Your task to perform on an android device: Open Google Maps Image 0: 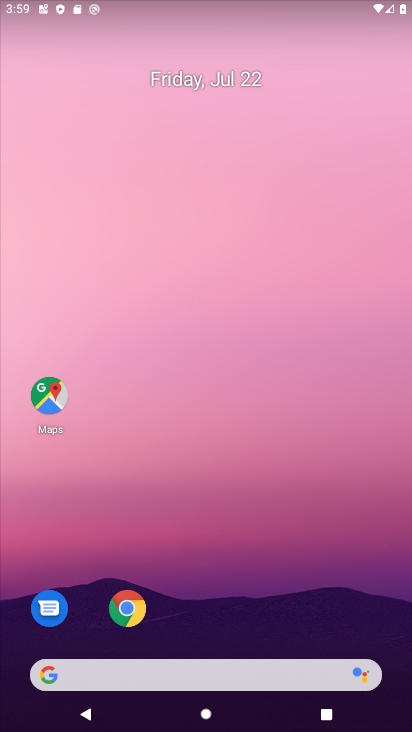
Step 0: drag from (232, 721) to (225, 122)
Your task to perform on an android device: Open Google Maps Image 1: 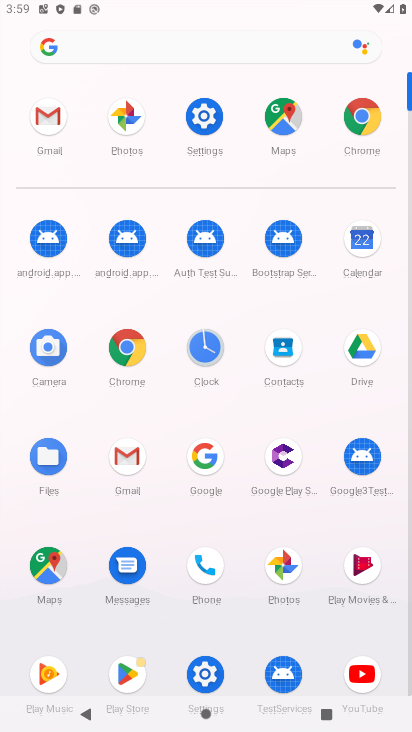
Step 1: click (203, 459)
Your task to perform on an android device: Open Google Maps Image 2: 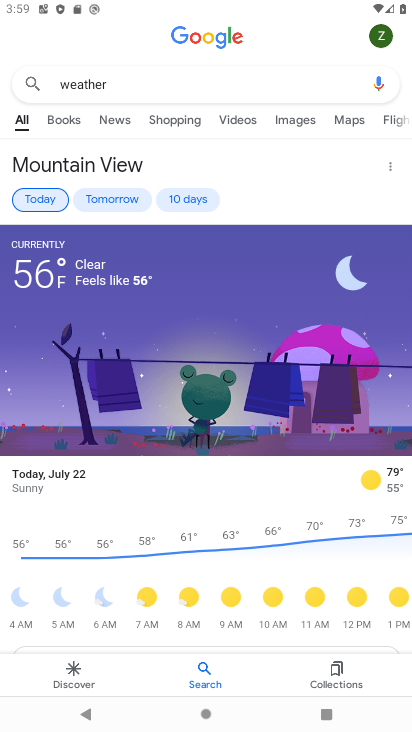
Step 2: press home button
Your task to perform on an android device: Open Google Maps Image 3: 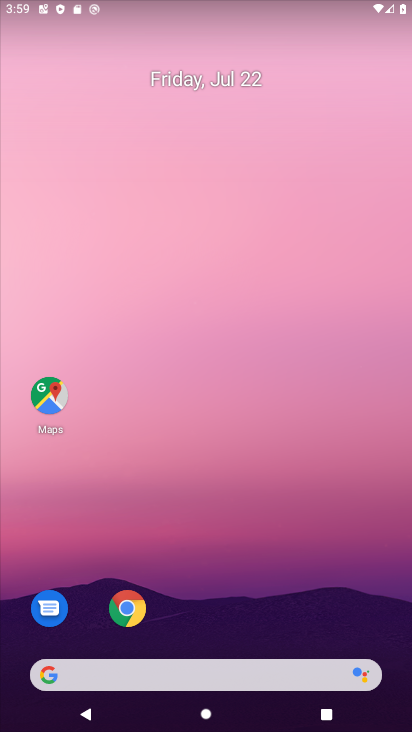
Step 3: click (47, 396)
Your task to perform on an android device: Open Google Maps Image 4: 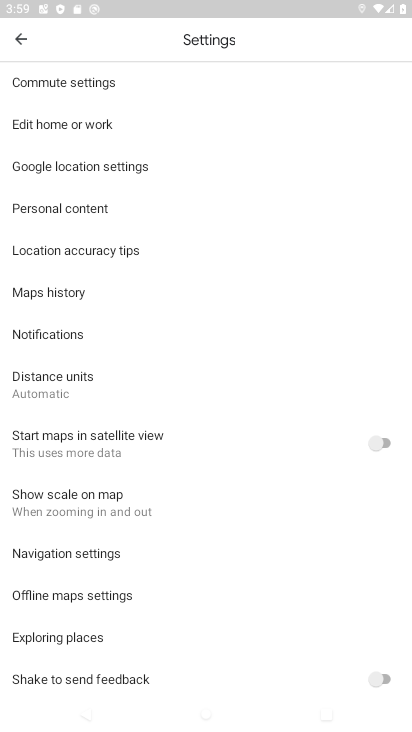
Step 4: click (22, 35)
Your task to perform on an android device: Open Google Maps Image 5: 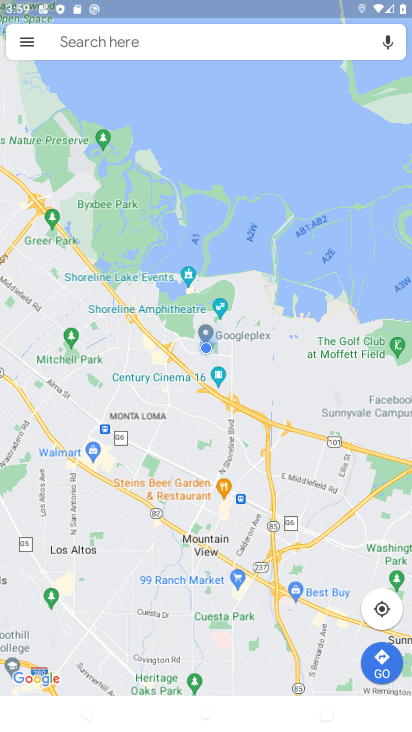
Step 5: task complete